Your task to perform on an android device: visit the assistant section in the google photos Image 0: 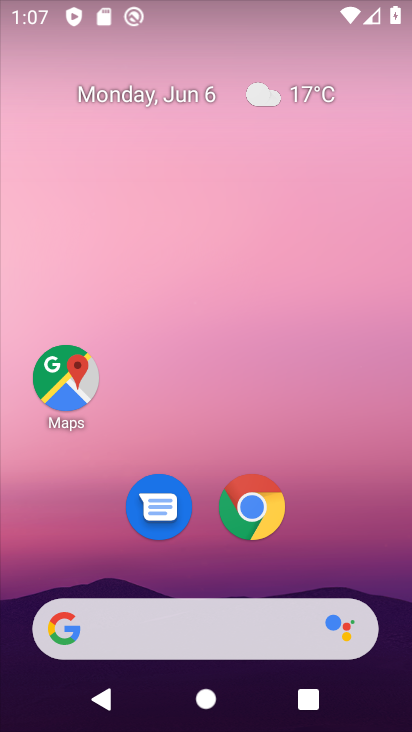
Step 0: drag from (248, 638) to (169, 142)
Your task to perform on an android device: visit the assistant section in the google photos Image 1: 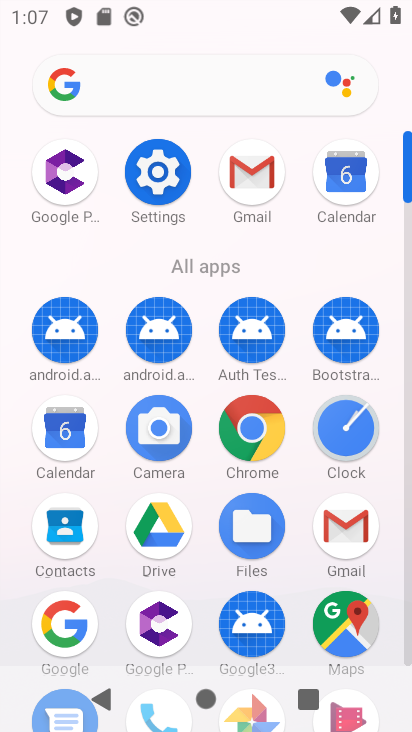
Step 1: drag from (195, 483) to (170, 346)
Your task to perform on an android device: visit the assistant section in the google photos Image 2: 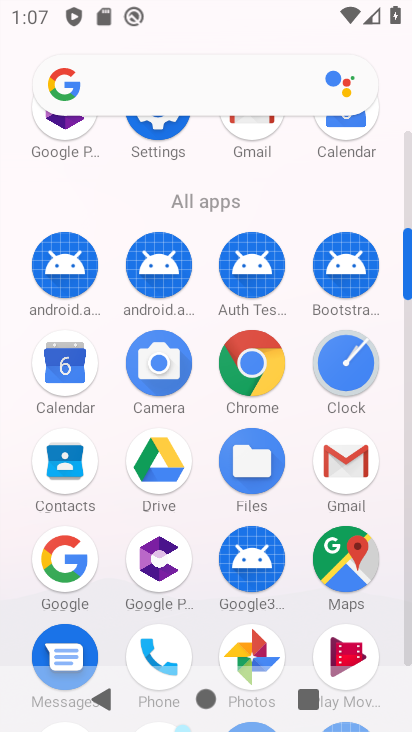
Step 2: click (236, 639)
Your task to perform on an android device: visit the assistant section in the google photos Image 3: 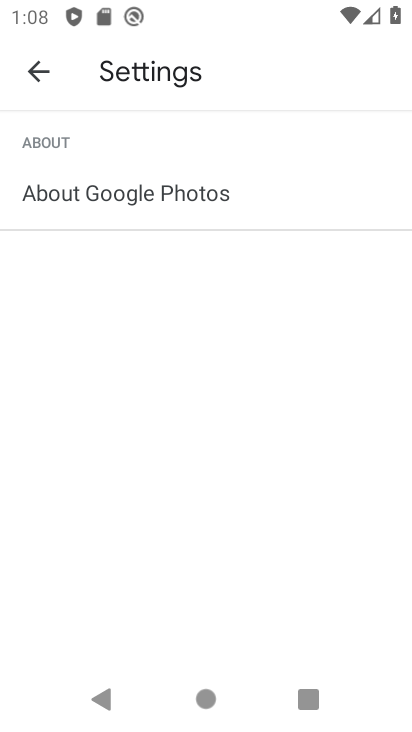
Step 3: click (39, 59)
Your task to perform on an android device: visit the assistant section in the google photos Image 4: 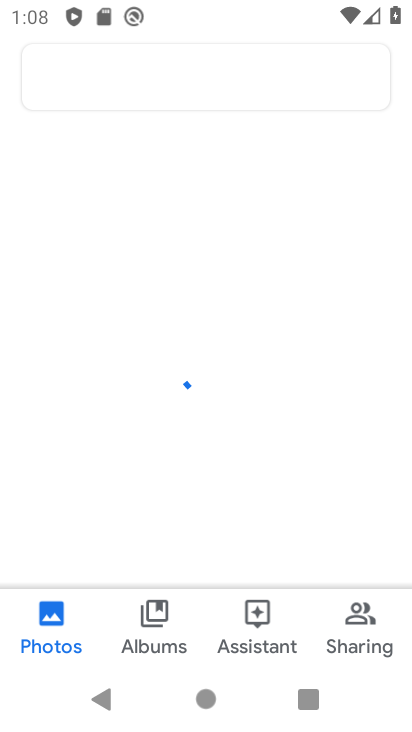
Step 4: click (265, 634)
Your task to perform on an android device: visit the assistant section in the google photos Image 5: 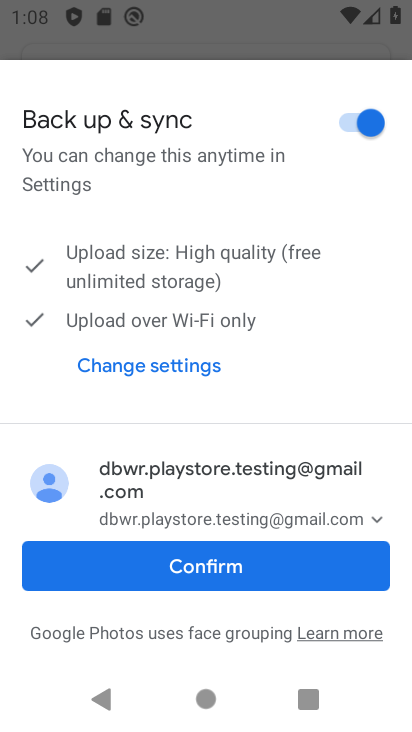
Step 5: click (246, 554)
Your task to perform on an android device: visit the assistant section in the google photos Image 6: 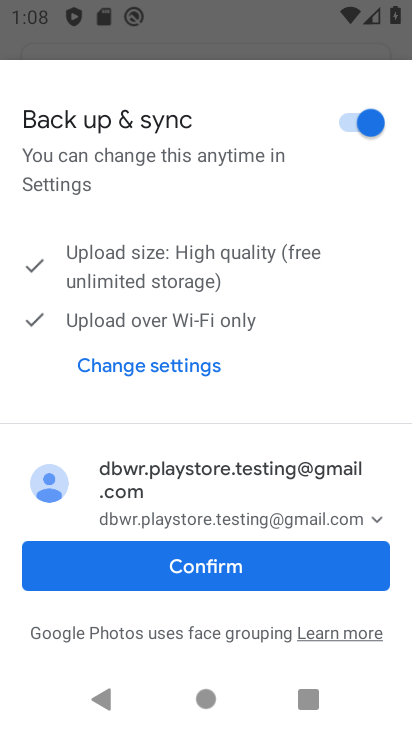
Step 6: click (246, 554)
Your task to perform on an android device: visit the assistant section in the google photos Image 7: 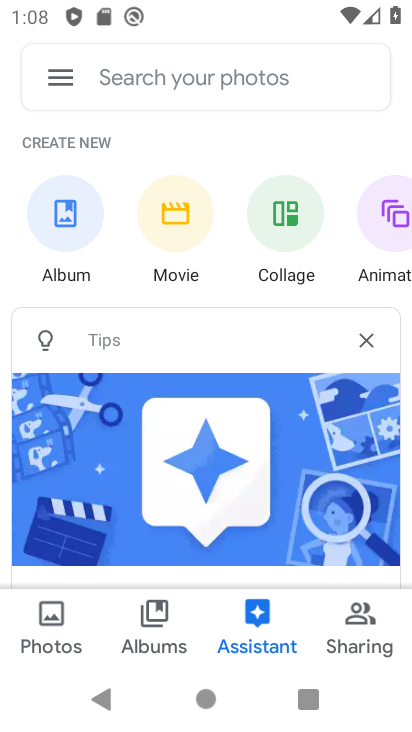
Step 7: task complete